Your task to perform on an android device: Is it going to rain today? Image 0: 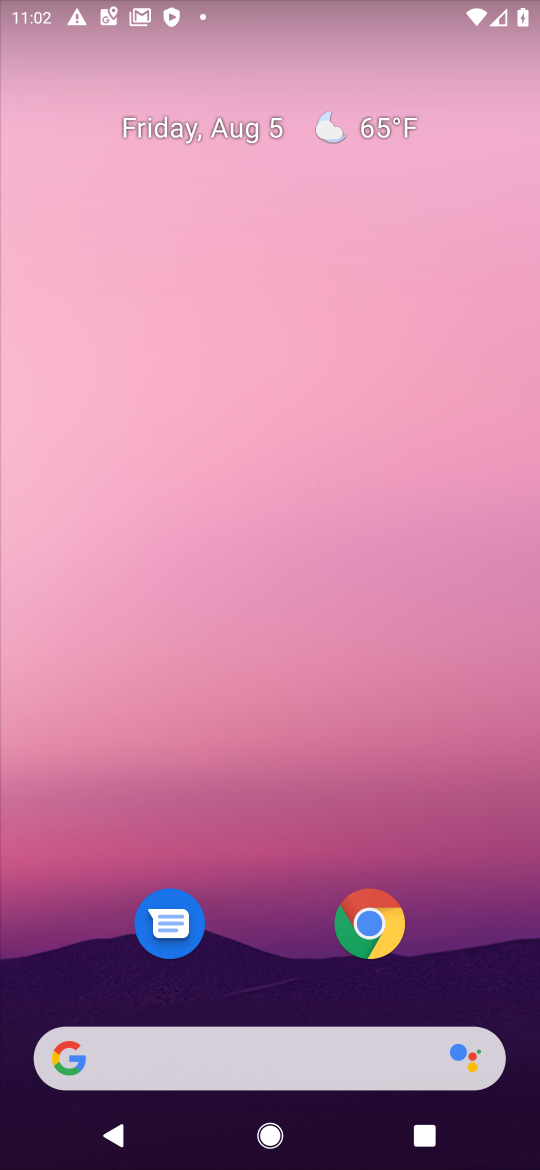
Step 0: drag from (316, 1067) to (286, 626)
Your task to perform on an android device: Is it going to rain today? Image 1: 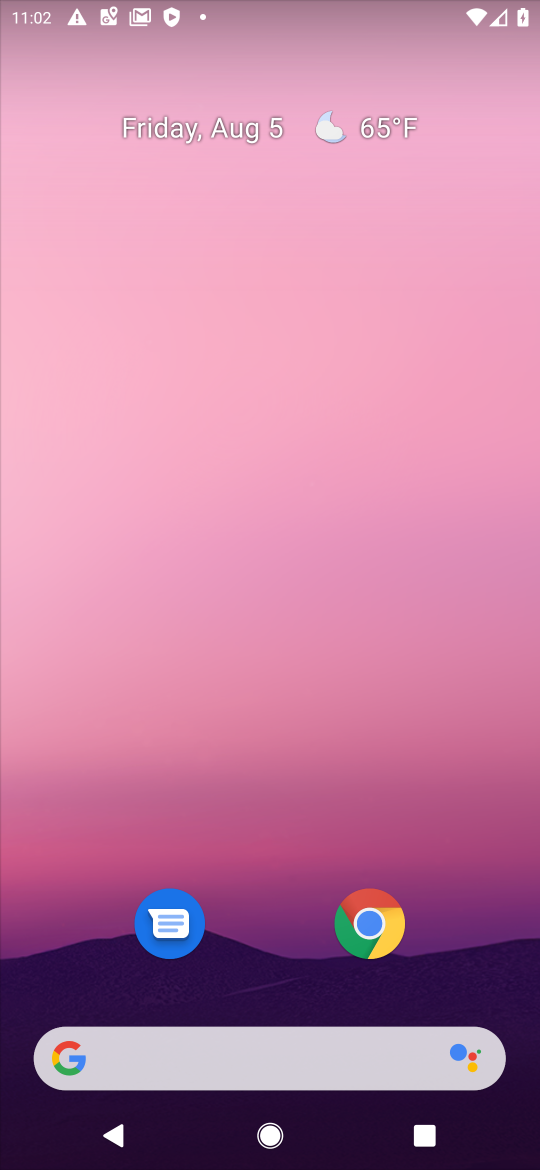
Step 1: drag from (279, 1066) to (290, 6)
Your task to perform on an android device: Is it going to rain today? Image 2: 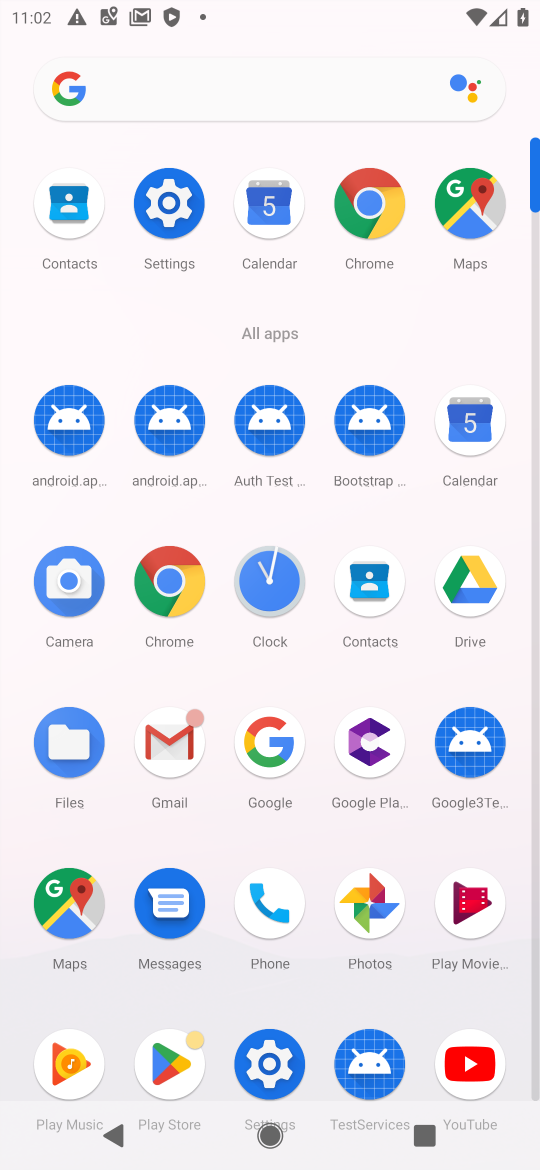
Step 2: click (160, 584)
Your task to perform on an android device: Is it going to rain today? Image 3: 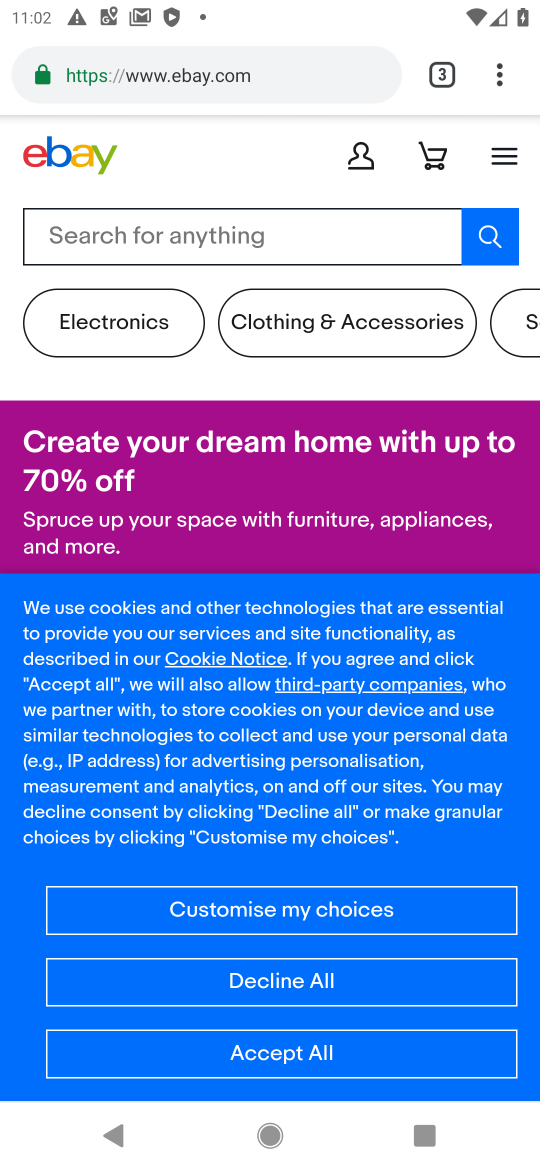
Step 3: click (275, 72)
Your task to perform on an android device: Is it going to rain today? Image 4: 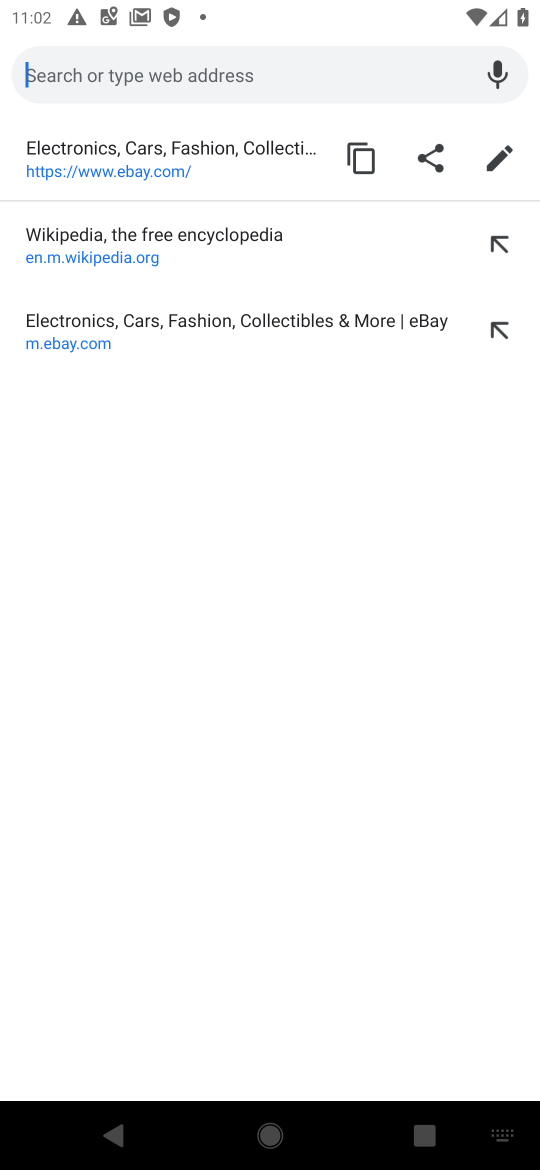
Step 4: click (275, 72)
Your task to perform on an android device: Is it going to rain today? Image 5: 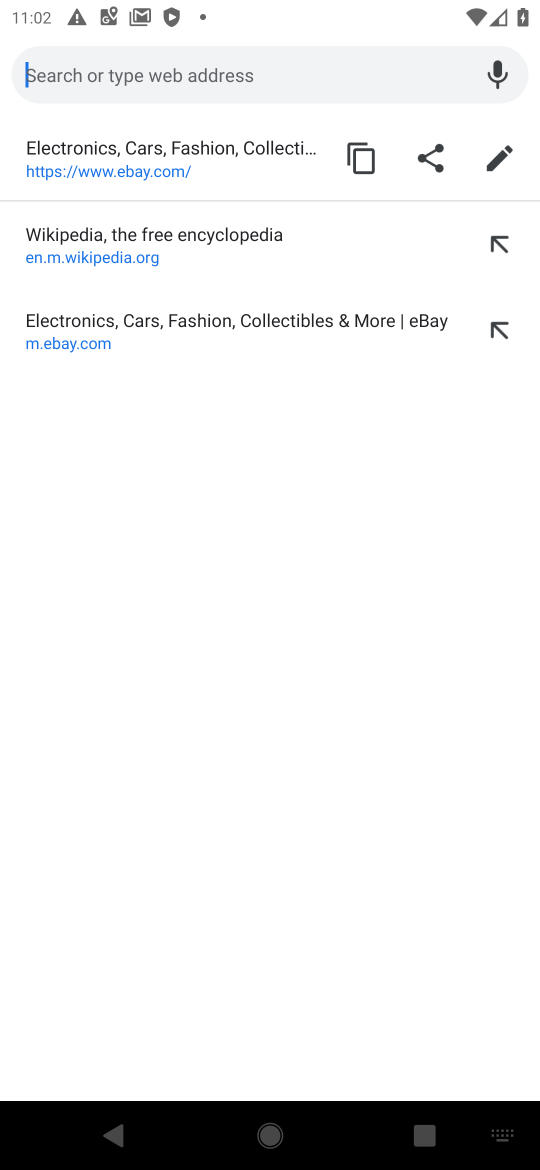
Step 5: type "is it going to rain today"
Your task to perform on an android device: Is it going to rain today? Image 6: 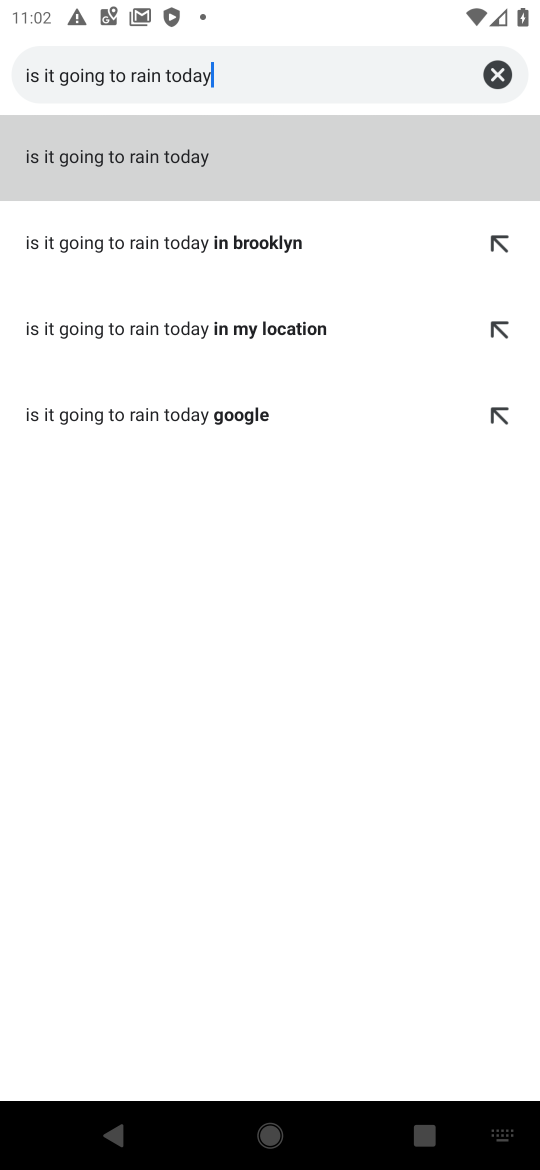
Step 6: click (231, 185)
Your task to perform on an android device: Is it going to rain today? Image 7: 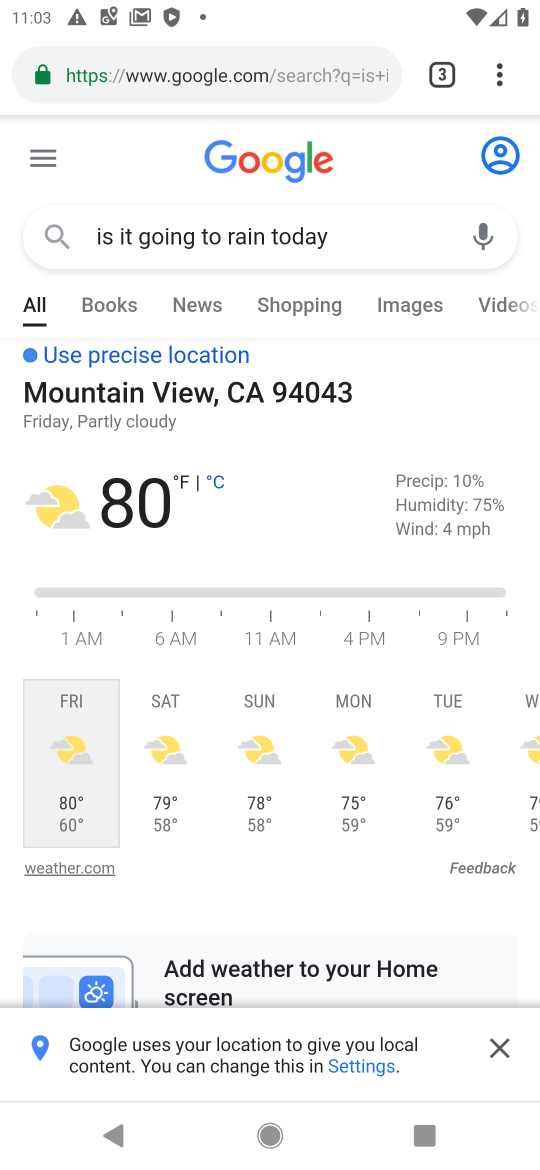
Step 7: task complete